Your task to perform on an android device: check data usage Image 0: 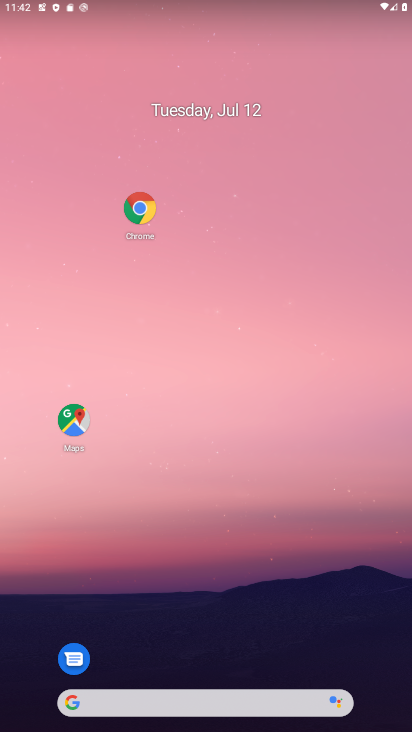
Step 0: drag from (328, 460) to (290, 5)
Your task to perform on an android device: check data usage Image 1: 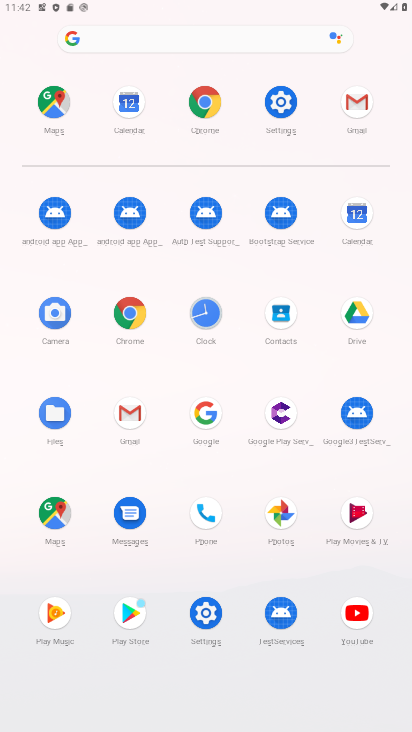
Step 1: click (278, 91)
Your task to perform on an android device: check data usage Image 2: 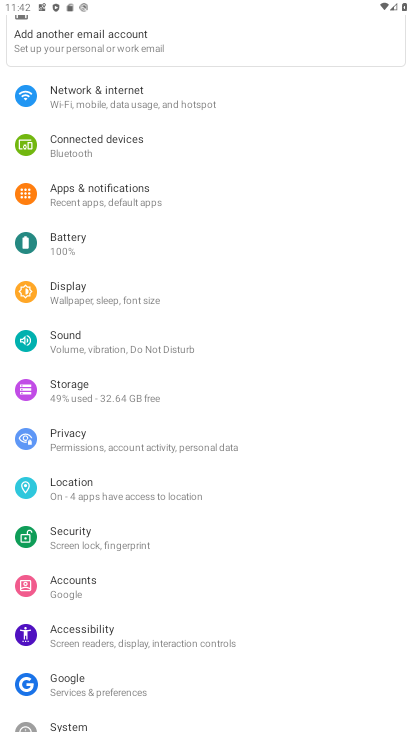
Step 2: click (137, 101)
Your task to perform on an android device: check data usage Image 3: 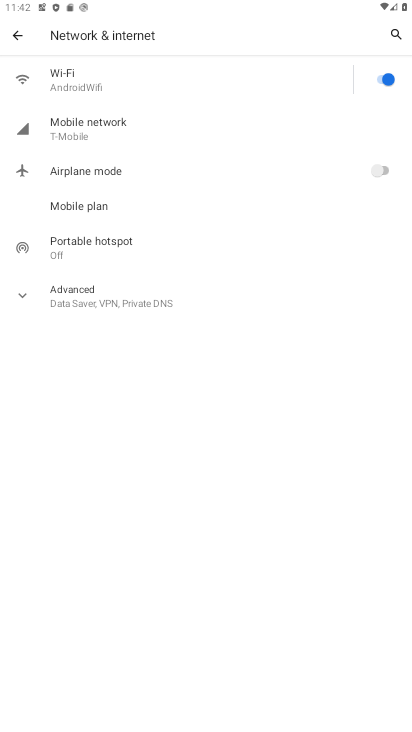
Step 3: click (92, 125)
Your task to perform on an android device: check data usage Image 4: 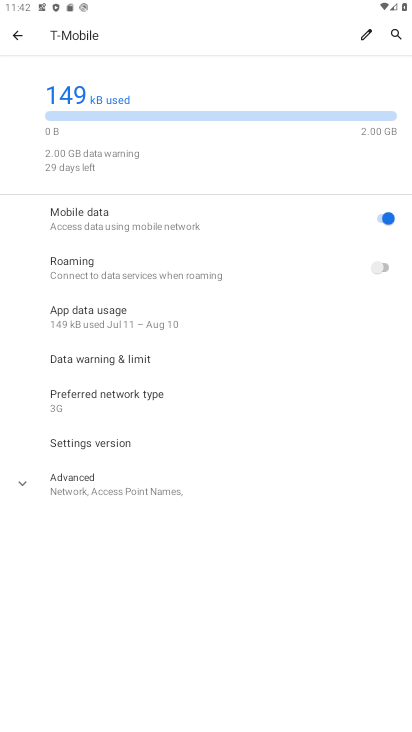
Step 4: task complete